Your task to perform on an android device: Open settings Image 0: 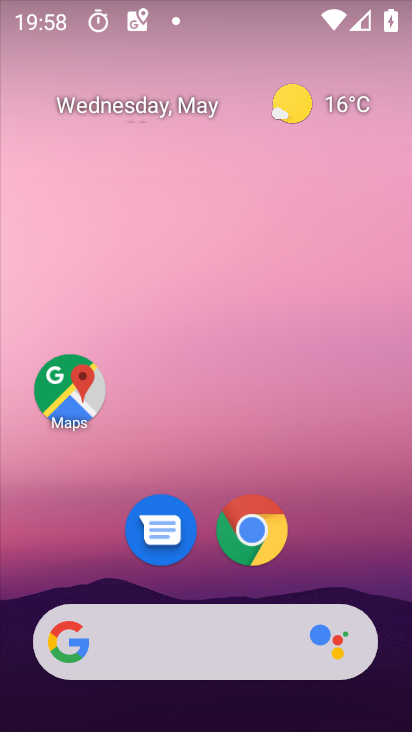
Step 0: drag from (151, 547) to (207, 199)
Your task to perform on an android device: Open settings Image 1: 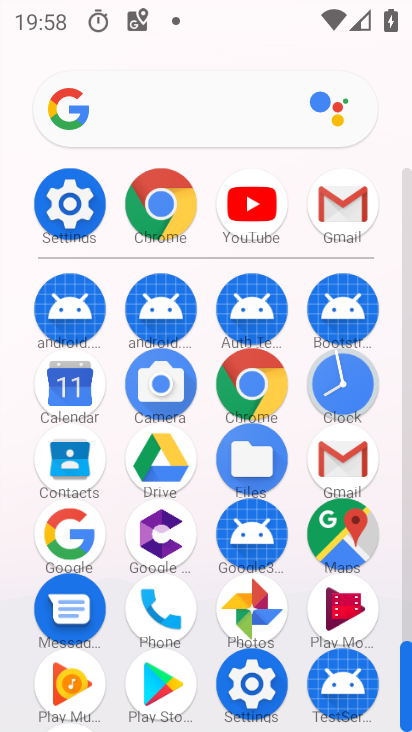
Step 1: click (242, 679)
Your task to perform on an android device: Open settings Image 2: 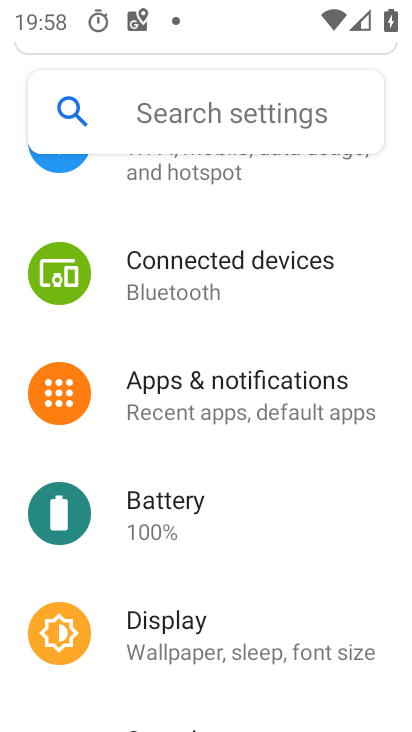
Step 2: task complete